Your task to perform on an android device: turn off improve location accuracy Image 0: 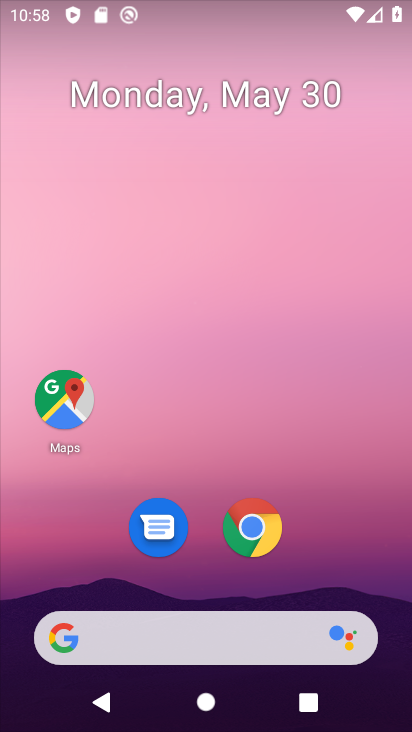
Step 0: drag from (340, 497) to (258, 154)
Your task to perform on an android device: turn off improve location accuracy Image 1: 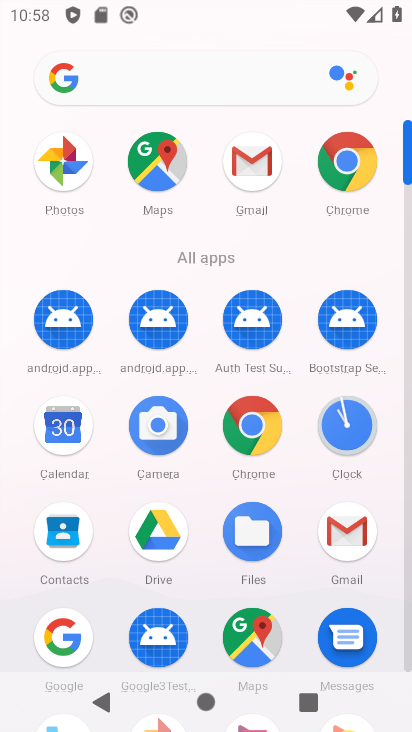
Step 1: drag from (294, 577) to (313, 251)
Your task to perform on an android device: turn off improve location accuracy Image 2: 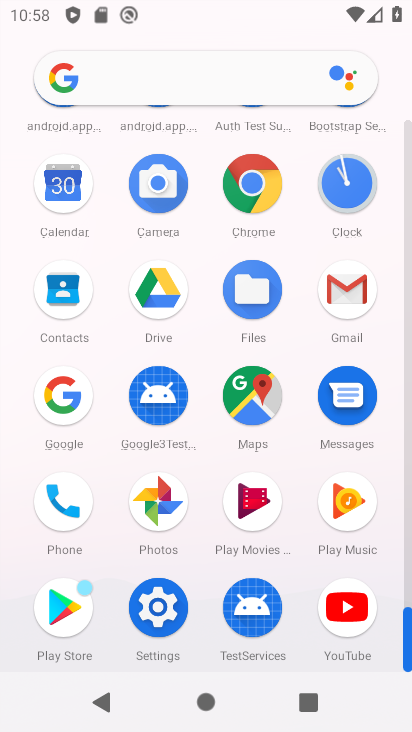
Step 2: click (128, 636)
Your task to perform on an android device: turn off improve location accuracy Image 3: 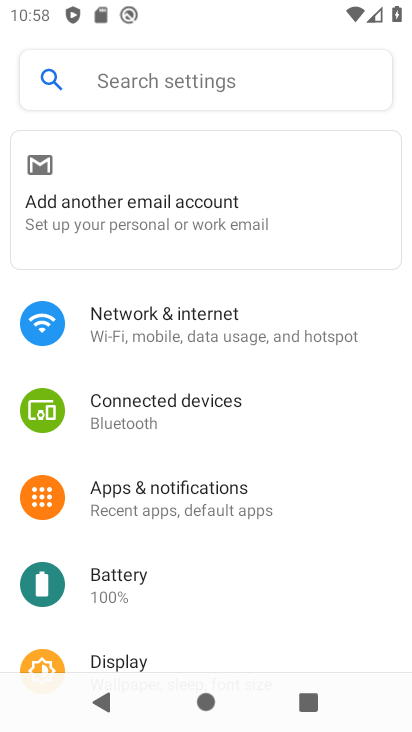
Step 3: drag from (299, 614) to (326, 219)
Your task to perform on an android device: turn off improve location accuracy Image 4: 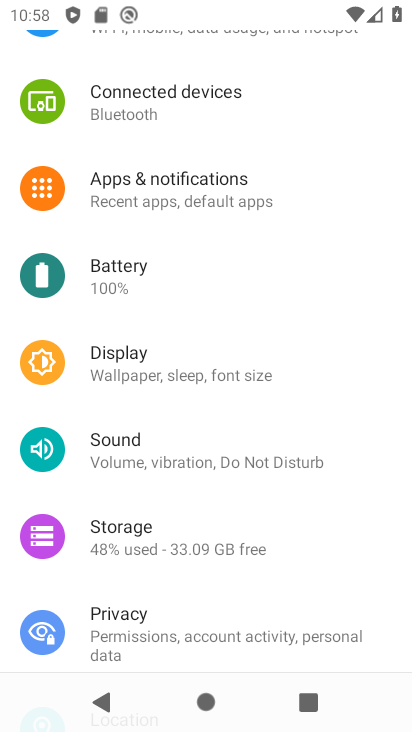
Step 4: drag from (272, 564) to (321, 263)
Your task to perform on an android device: turn off improve location accuracy Image 5: 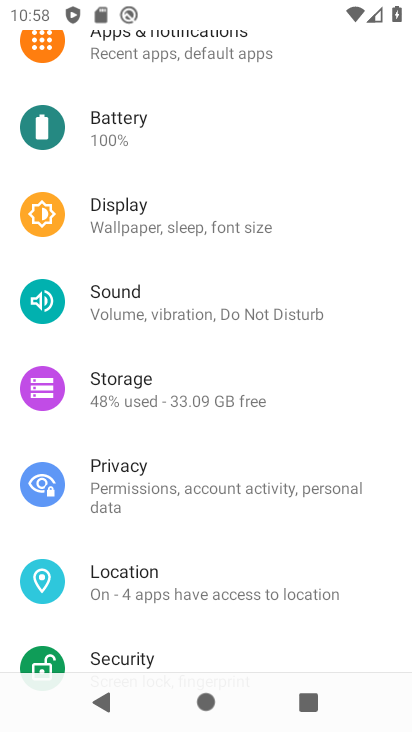
Step 5: click (201, 604)
Your task to perform on an android device: turn off improve location accuracy Image 6: 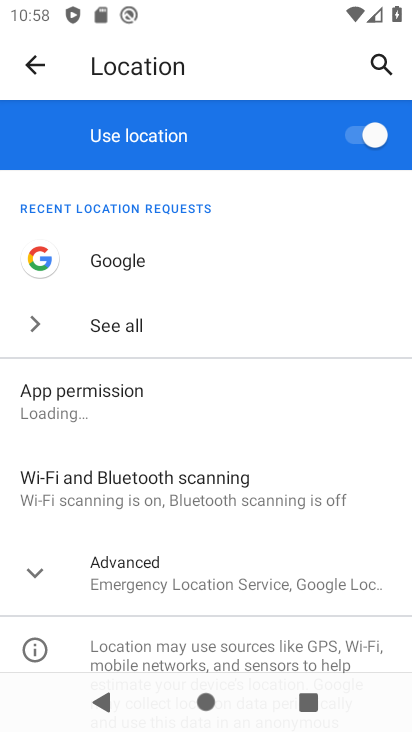
Step 6: click (192, 591)
Your task to perform on an android device: turn off improve location accuracy Image 7: 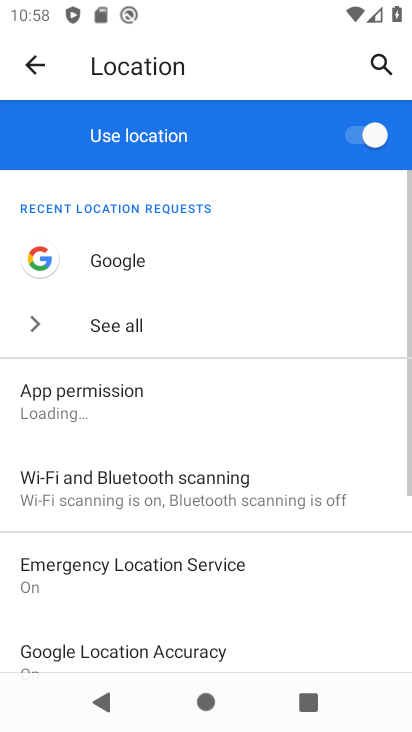
Step 7: drag from (261, 655) to (320, 302)
Your task to perform on an android device: turn off improve location accuracy Image 8: 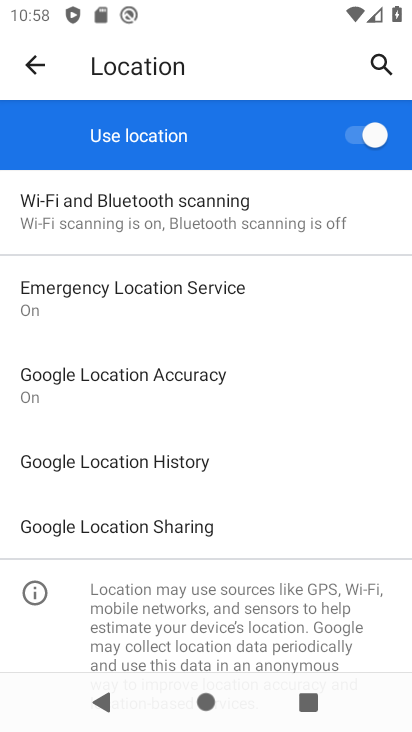
Step 8: click (231, 371)
Your task to perform on an android device: turn off improve location accuracy Image 9: 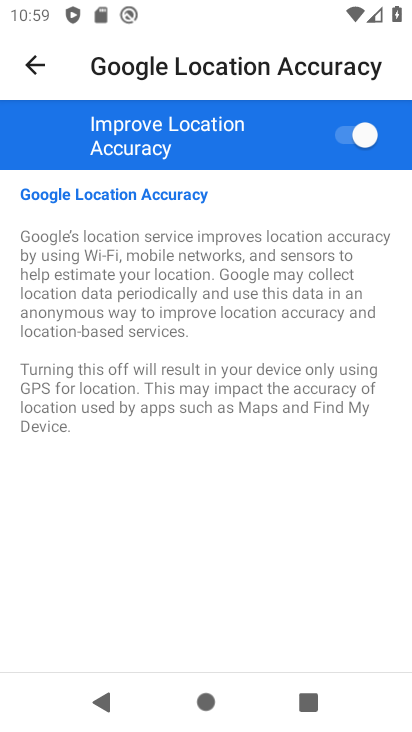
Step 9: click (351, 137)
Your task to perform on an android device: turn off improve location accuracy Image 10: 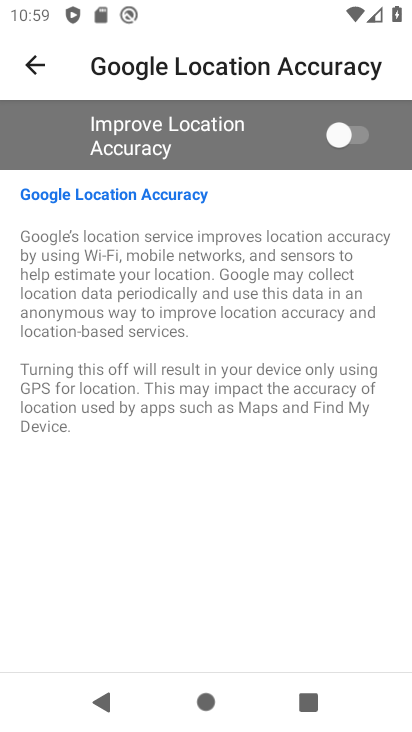
Step 10: task complete